Your task to perform on an android device: Open Google Chrome and open the bookmarks view Image 0: 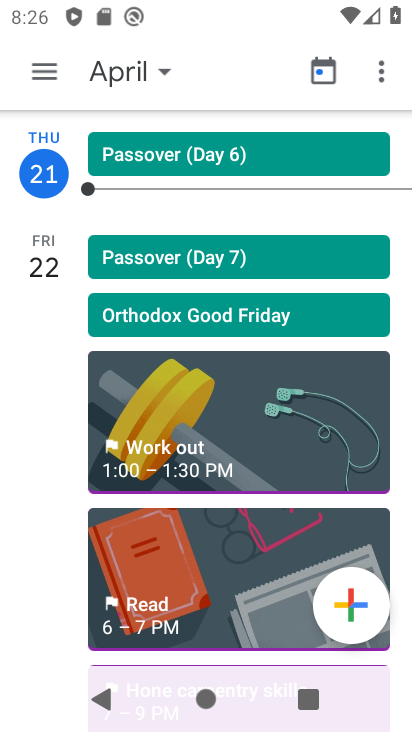
Step 0: press home button
Your task to perform on an android device: Open Google Chrome and open the bookmarks view Image 1: 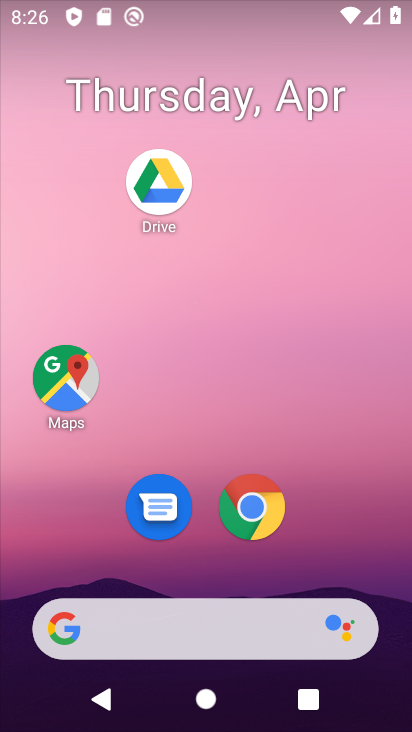
Step 1: drag from (367, 553) to (360, 131)
Your task to perform on an android device: Open Google Chrome and open the bookmarks view Image 2: 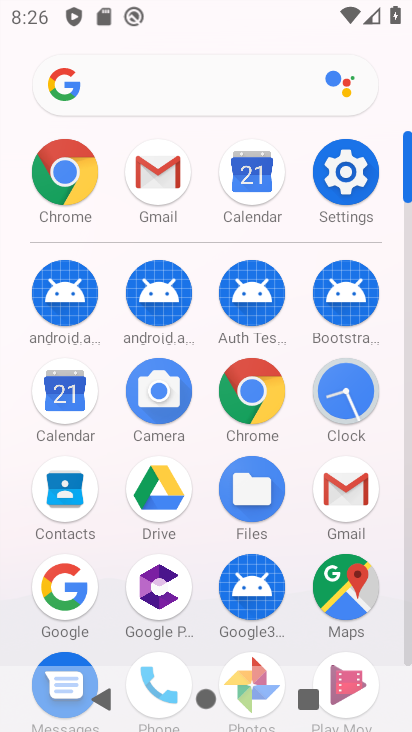
Step 2: click (254, 398)
Your task to perform on an android device: Open Google Chrome and open the bookmarks view Image 3: 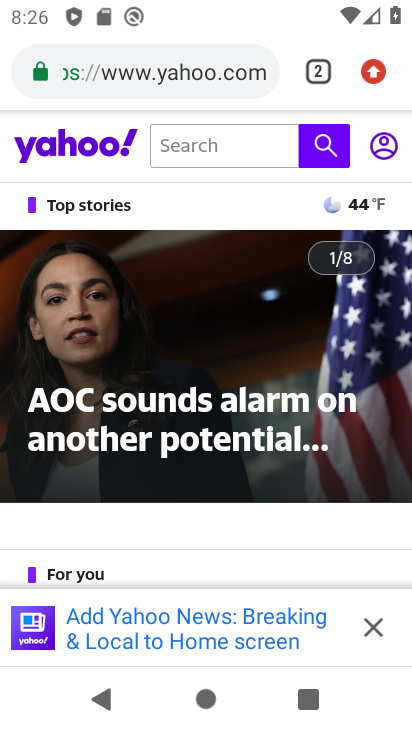
Step 3: click (372, 73)
Your task to perform on an android device: Open Google Chrome and open the bookmarks view Image 4: 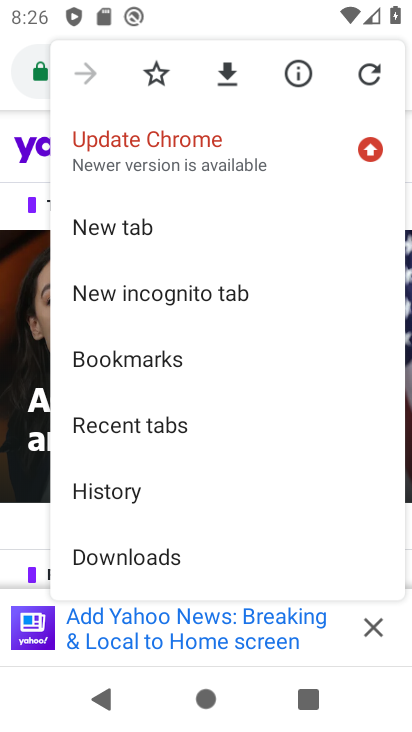
Step 4: drag from (317, 484) to (331, 329)
Your task to perform on an android device: Open Google Chrome and open the bookmarks view Image 5: 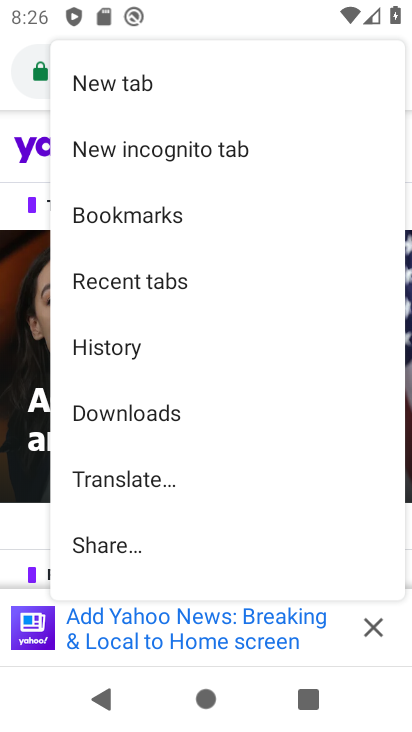
Step 5: drag from (318, 501) to (316, 336)
Your task to perform on an android device: Open Google Chrome and open the bookmarks view Image 6: 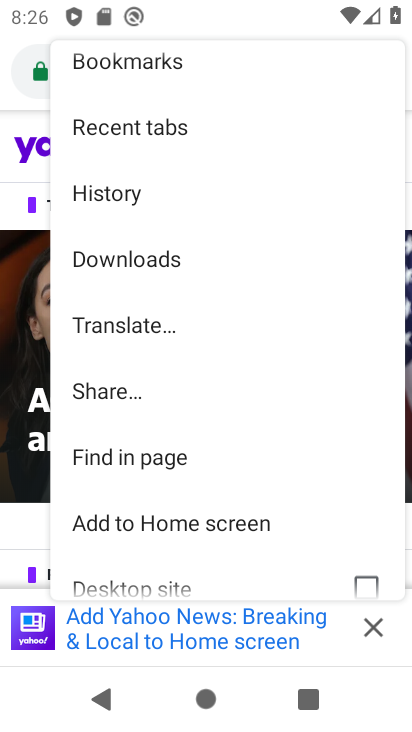
Step 6: drag from (289, 538) to (308, 349)
Your task to perform on an android device: Open Google Chrome and open the bookmarks view Image 7: 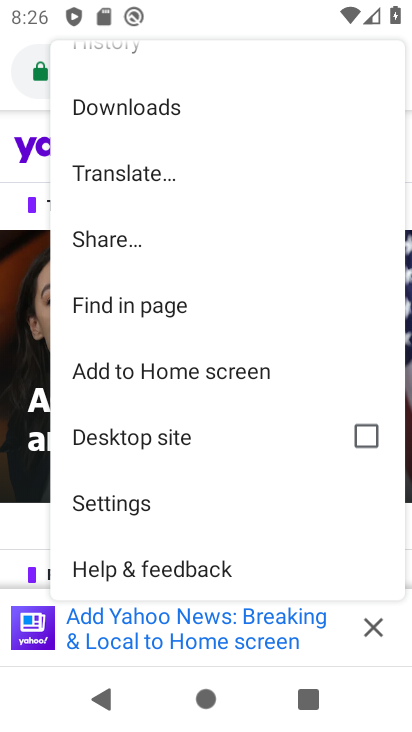
Step 7: drag from (283, 521) to (304, 390)
Your task to perform on an android device: Open Google Chrome and open the bookmarks view Image 8: 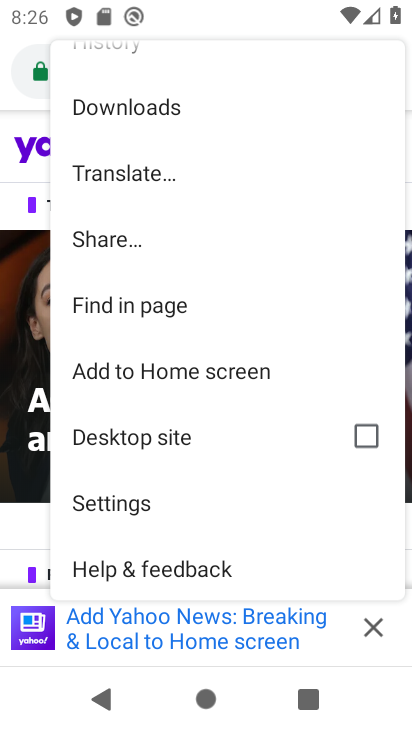
Step 8: drag from (288, 267) to (278, 403)
Your task to perform on an android device: Open Google Chrome and open the bookmarks view Image 9: 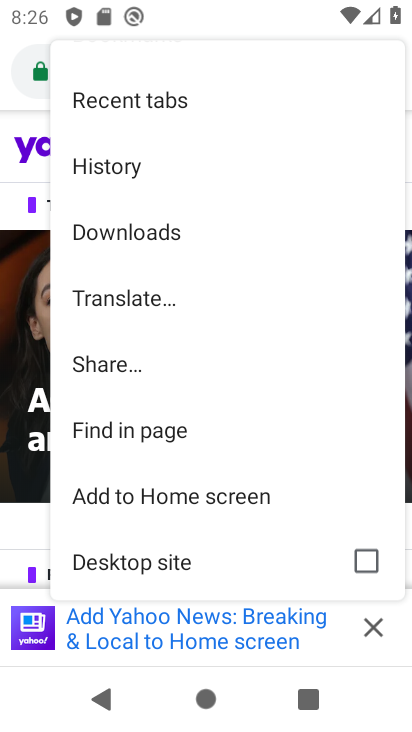
Step 9: drag from (286, 261) to (291, 404)
Your task to perform on an android device: Open Google Chrome and open the bookmarks view Image 10: 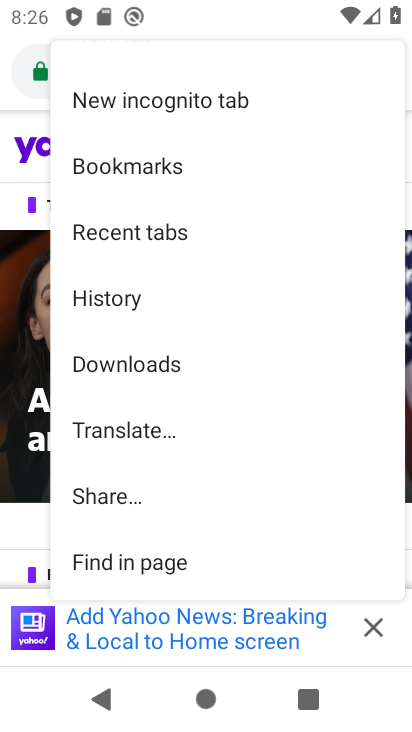
Step 10: drag from (291, 224) to (278, 390)
Your task to perform on an android device: Open Google Chrome and open the bookmarks view Image 11: 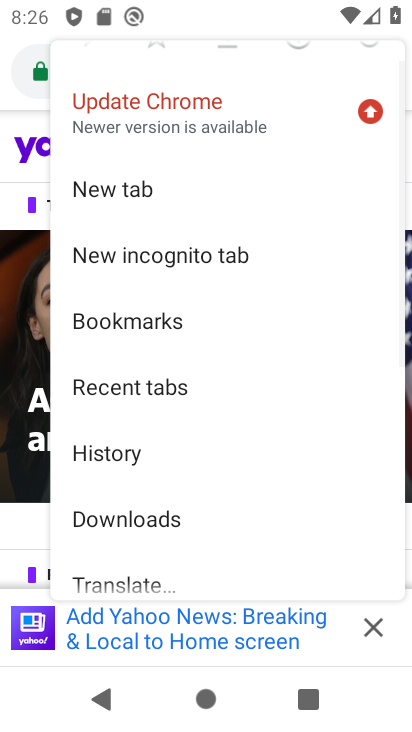
Step 11: click (182, 316)
Your task to perform on an android device: Open Google Chrome and open the bookmarks view Image 12: 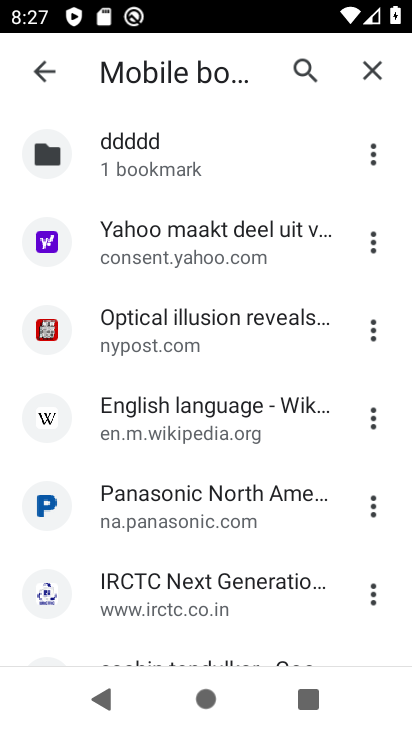
Step 12: task complete